Your task to perform on an android device: Go to sound settings Image 0: 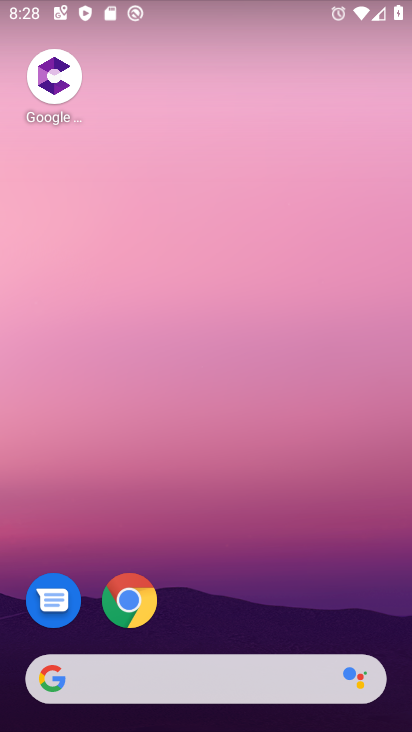
Step 0: drag from (245, 709) to (242, 165)
Your task to perform on an android device: Go to sound settings Image 1: 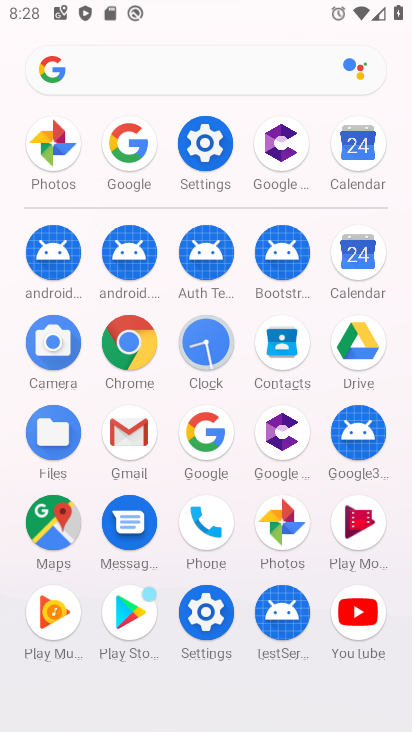
Step 1: click (200, 602)
Your task to perform on an android device: Go to sound settings Image 2: 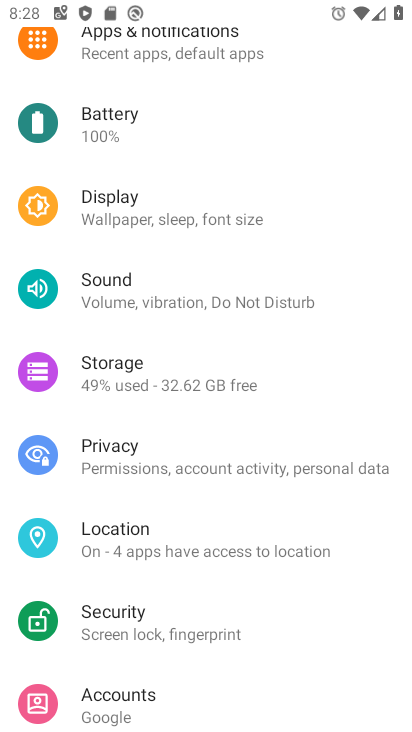
Step 2: drag from (185, 674) to (193, 340)
Your task to perform on an android device: Go to sound settings Image 3: 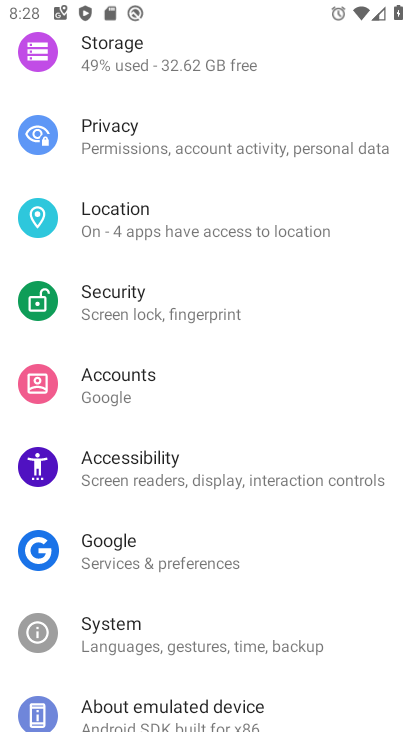
Step 3: drag from (249, 151) to (226, 561)
Your task to perform on an android device: Go to sound settings Image 4: 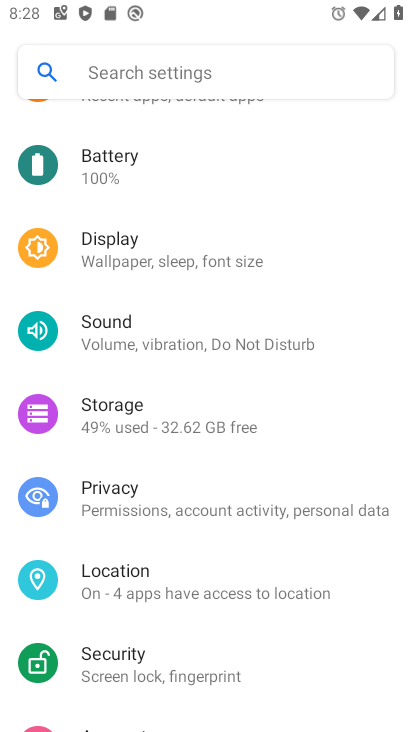
Step 4: click (102, 327)
Your task to perform on an android device: Go to sound settings Image 5: 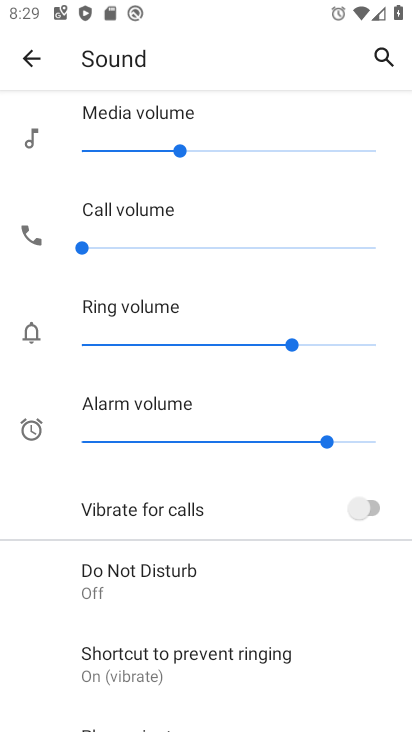
Step 5: task complete